Your task to perform on an android device: set an alarm Image 0: 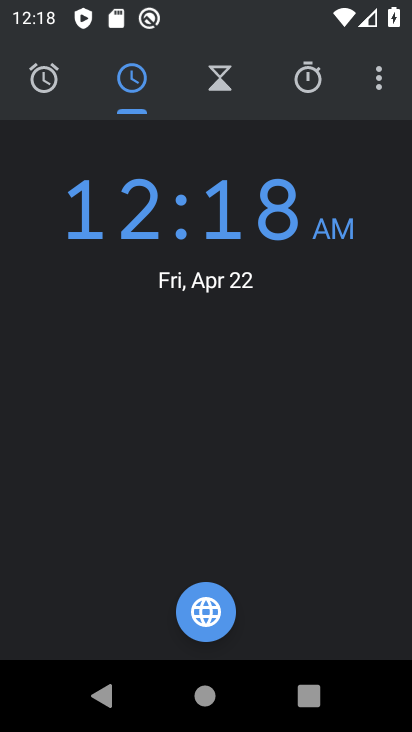
Step 0: click (70, 79)
Your task to perform on an android device: set an alarm Image 1: 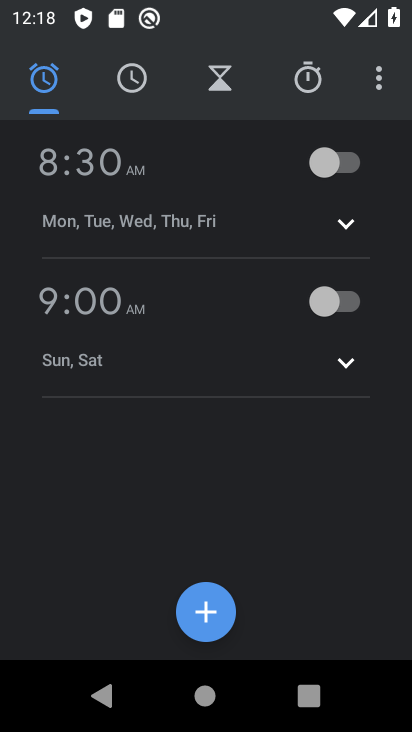
Step 1: task complete